Your task to perform on an android device: Open settings on Google Maps Image 0: 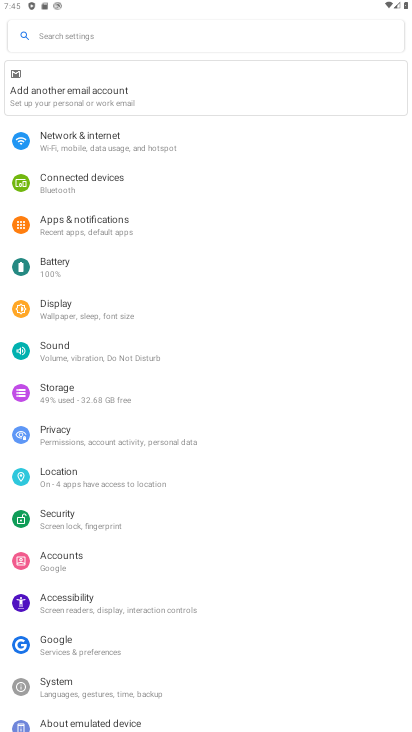
Step 0: press home button
Your task to perform on an android device: Open settings on Google Maps Image 1: 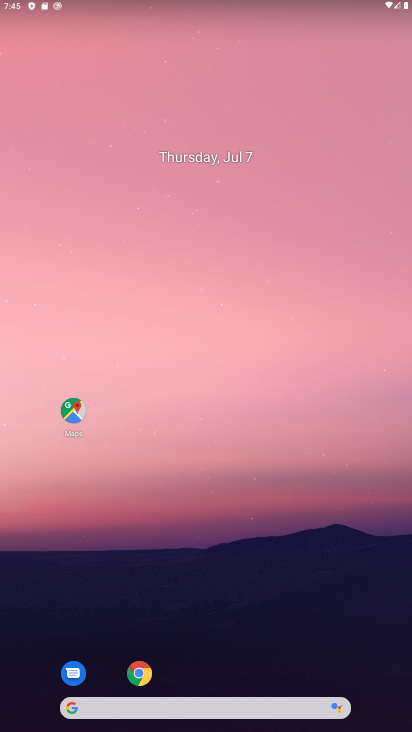
Step 1: drag from (219, 658) to (89, 430)
Your task to perform on an android device: Open settings on Google Maps Image 2: 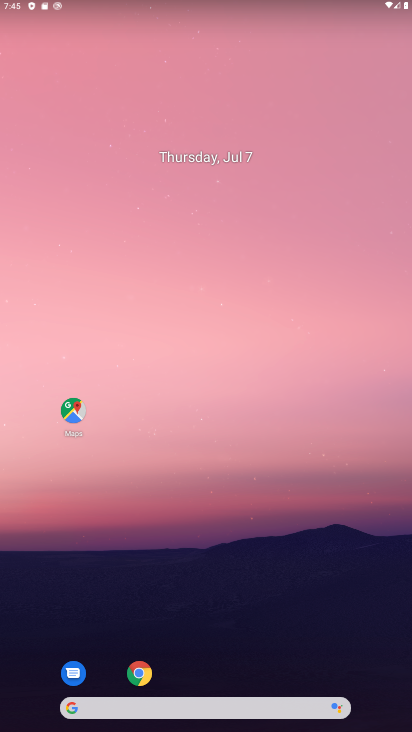
Step 2: click (71, 410)
Your task to perform on an android device: Open settings on Google Maps Image 3: 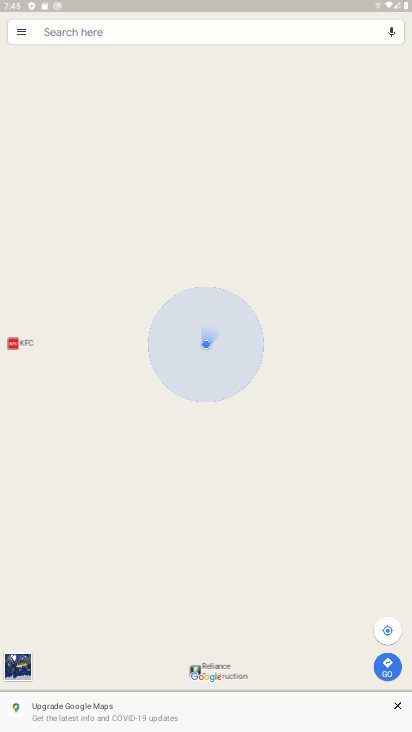
Step 3: task complete